Your task to perform on an android device: install app "Mercado Libre" Image 0: 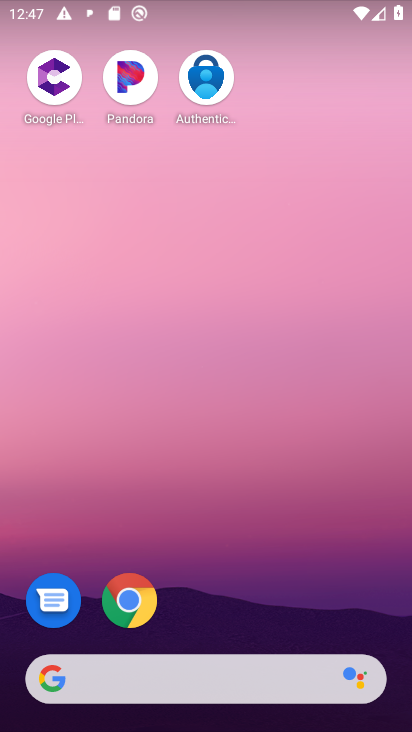
Step 0: drag from (196, 657) to (209, 82)
Your task to perform on an android device: install app "Mercado Libre" Image 1: 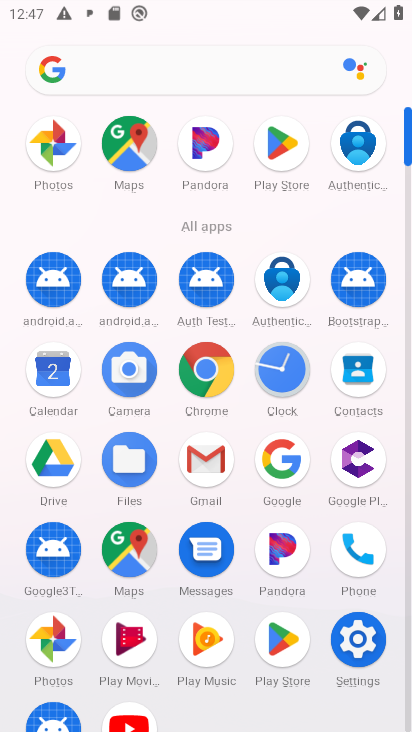
Step 1: click (268, 134)
Your task to perform on an android device: install app "Mercado Libre" Image 2: 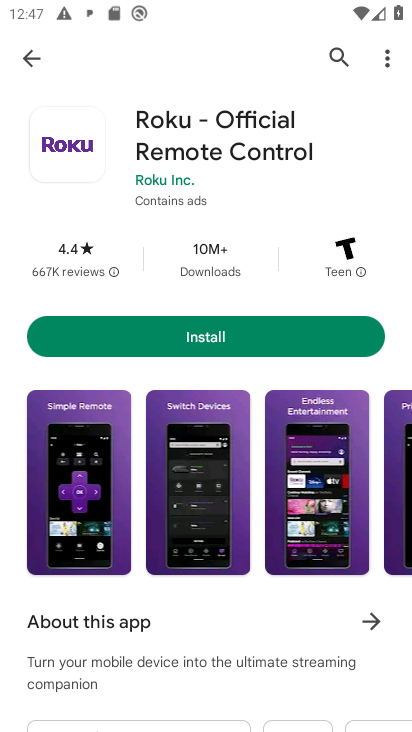
Step 2: click (34, 61)
Your task to perform on an android device: install app "Mercado Libre" Image 3: 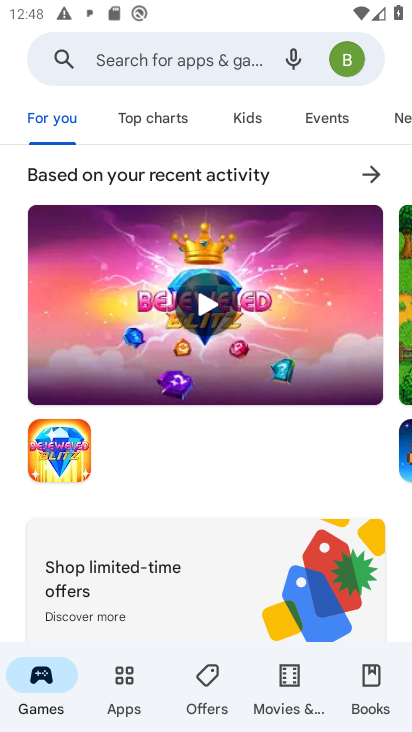
Step 3: click (143, 47)
Your task to perform on an android device: install app "Mercado Libre" Image 4: 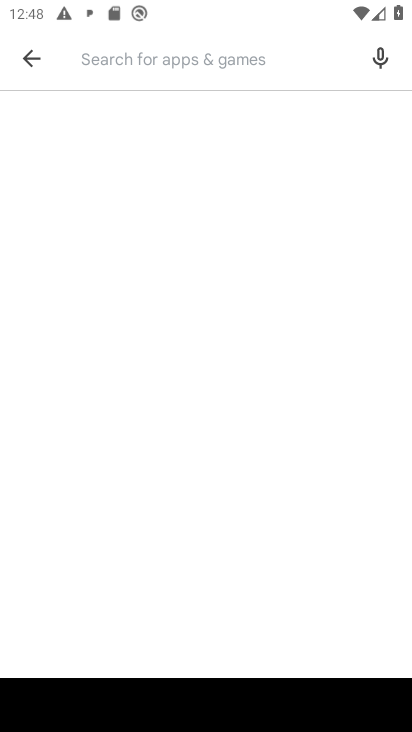
Step 4: type "Mercado Libre"
Your task to perform on an android device: install app "Mercado Libre" Image 5: 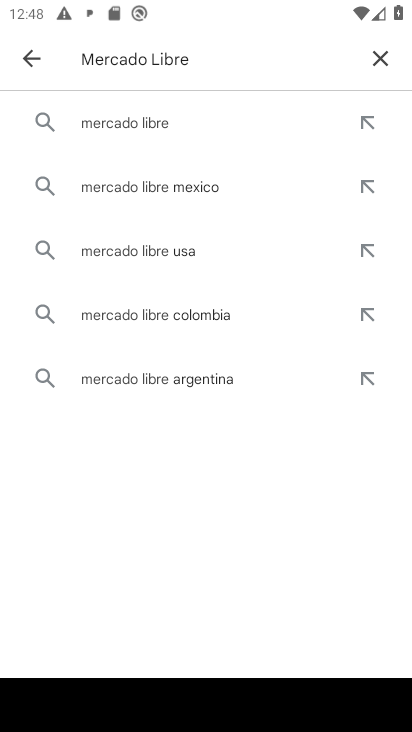
Step 5: click (125, 126)
Your task to perform on an android device: install app "Mercado Libre" Image 6: 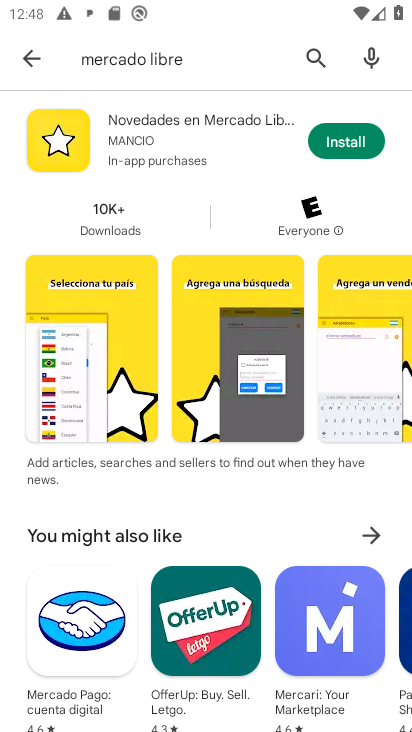
Step 6: click (341, 141)
Your task to perform on an android device: install app "Mercado Libre" Image 7: 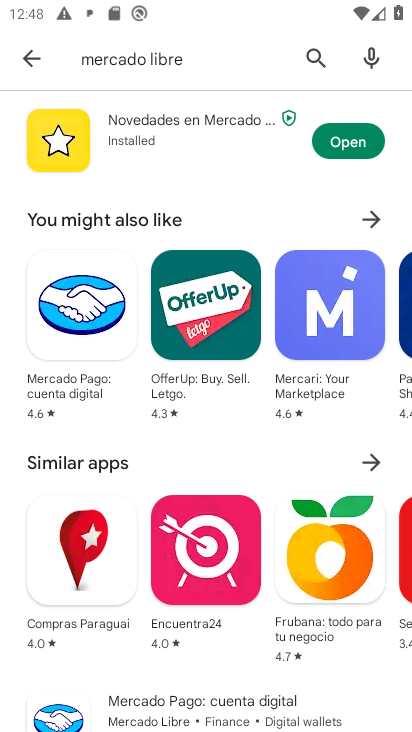
Step 7: click (334, 152)
Your task to perform on an android device: install app "Mercado Libre" Image 8: 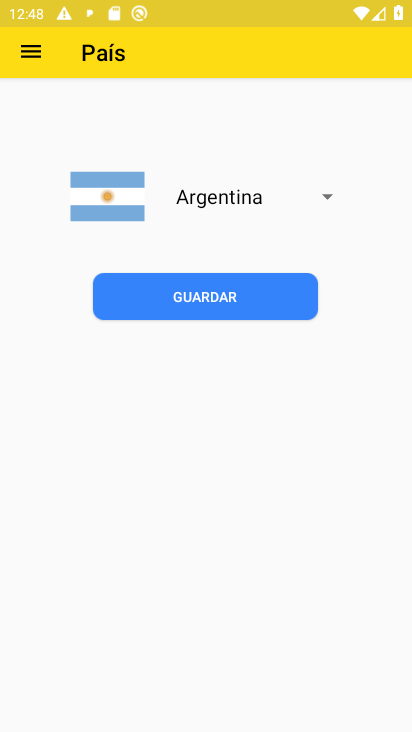
Step 8: task complete